Your task to perform on an android device: Look up the book "The Girl on the Train". Image 0: 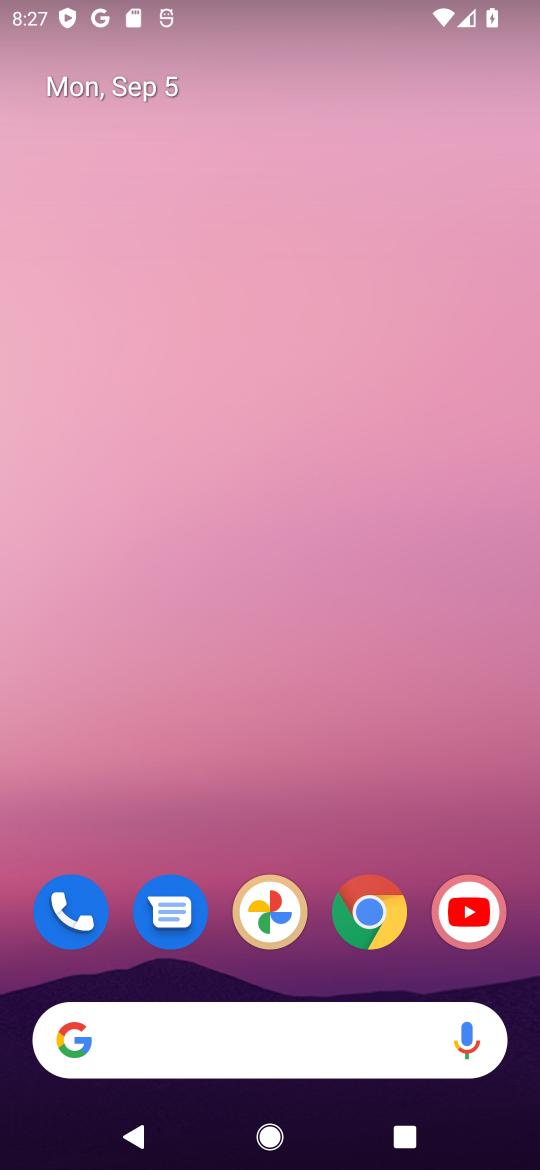
Step 0: press home button
Your task to perform on an android device: Look up the book "The Girl on the Train". Image 1: 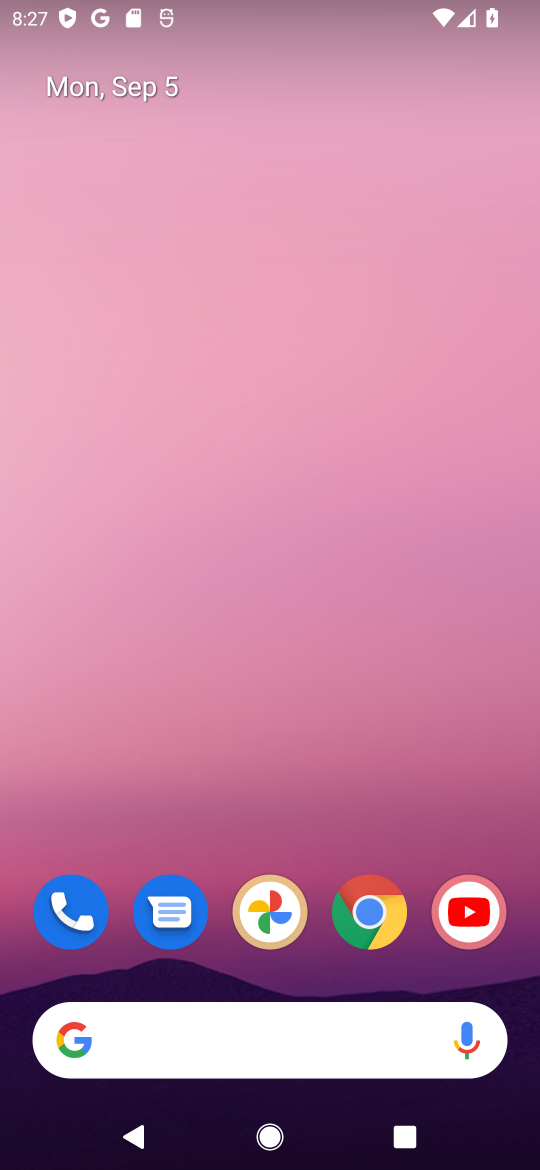
Step 1: click (377, 916)
Your task to perform on an android device: Look up the book "The Girl on the Train". Image 2: 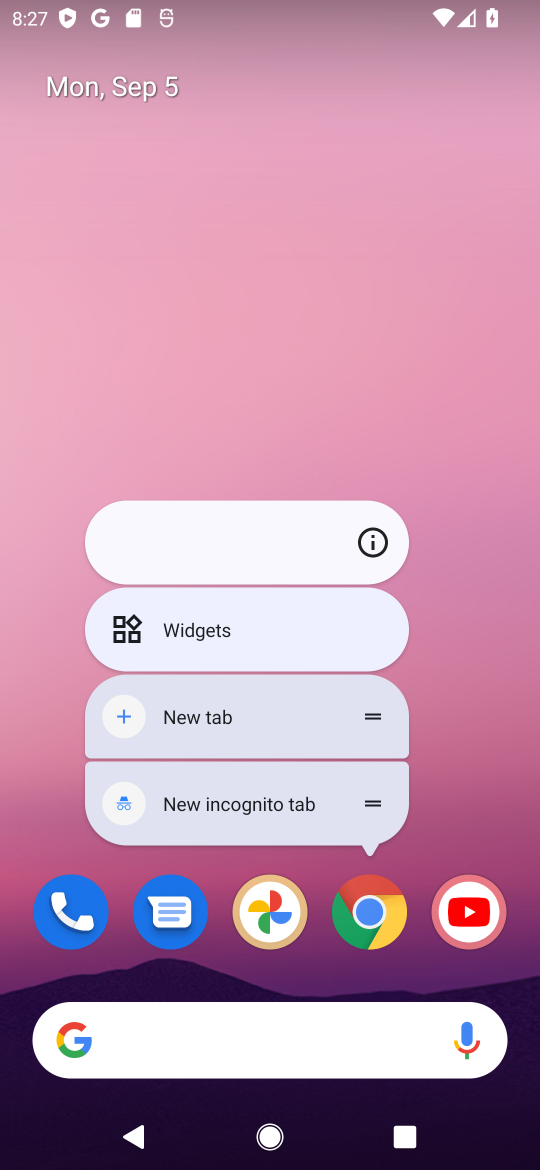
Step 2: click (387, 922)
Your task to perform on an android device: Look up the book "The Girl on the Train". Image 3: 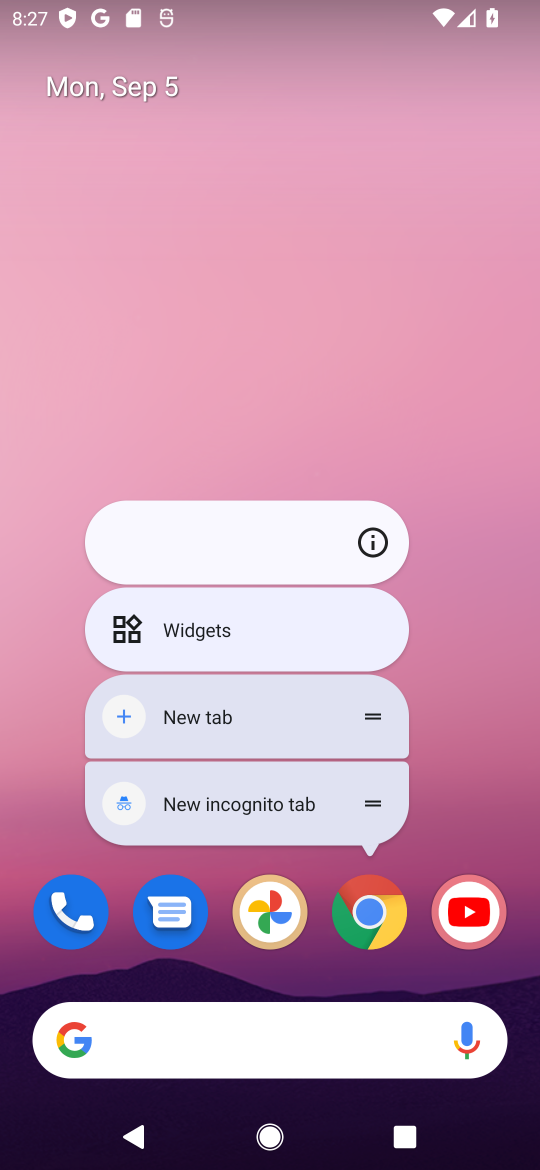
Step 3: click (387, 922)
Your task to perform on an android device: Look up the book "The Girl on the Train". Image 4: 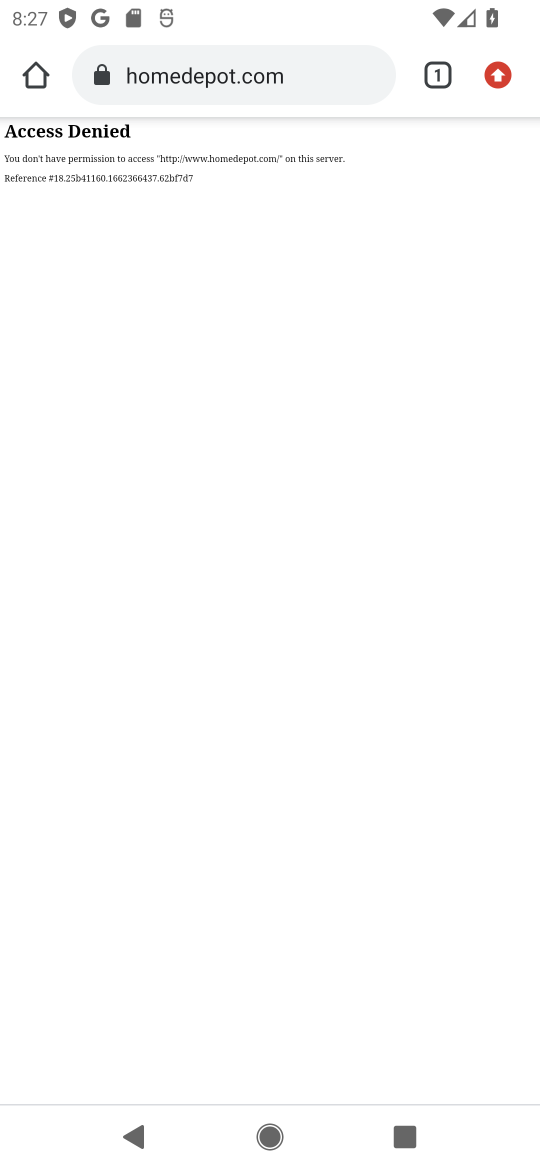
Step 4: click (276, 70)
Your task to perform on an android device: Look up the book "The Girl on the Train". Image 5: 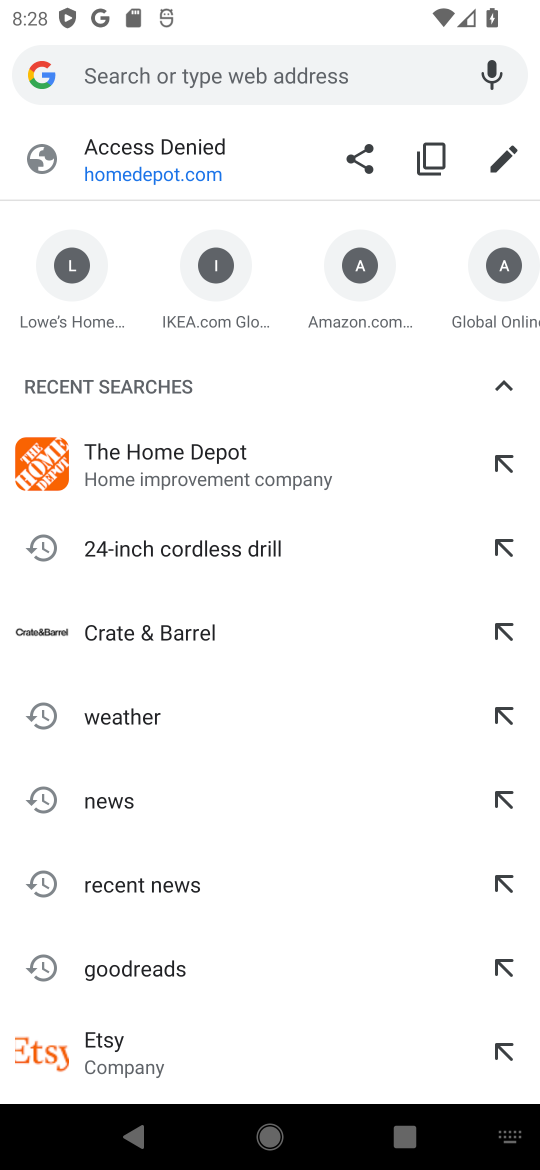
Step 5: type "the girl on the train book"
Your task to perform on an android device: Look up the book "The Girl on the Train". Image 6: 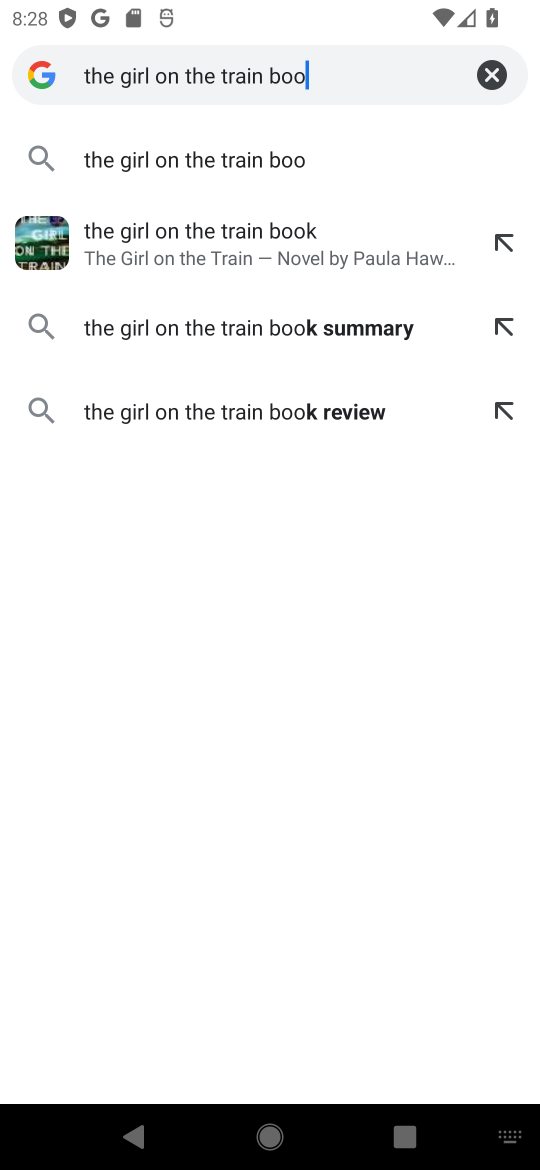
Step 6: press enter
Your task to perform on an android device: Look up the book "The Girl on the Train". Image 7: 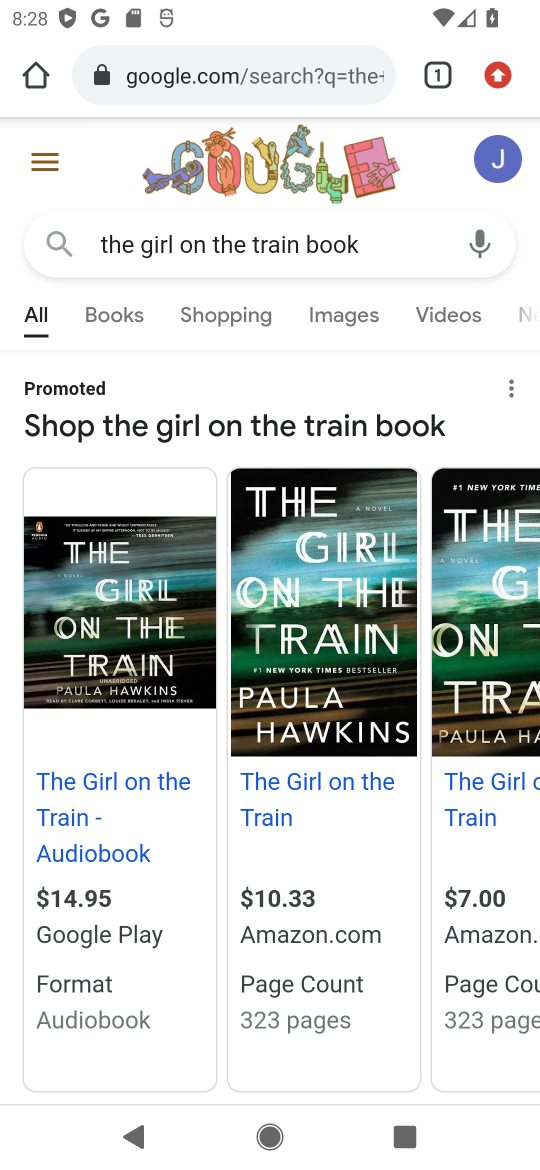
Step 7: drag from (437, 665) to (223, 667)
Your task to perform on an android device: Look up the book "The Girl on the Train". Image 8: 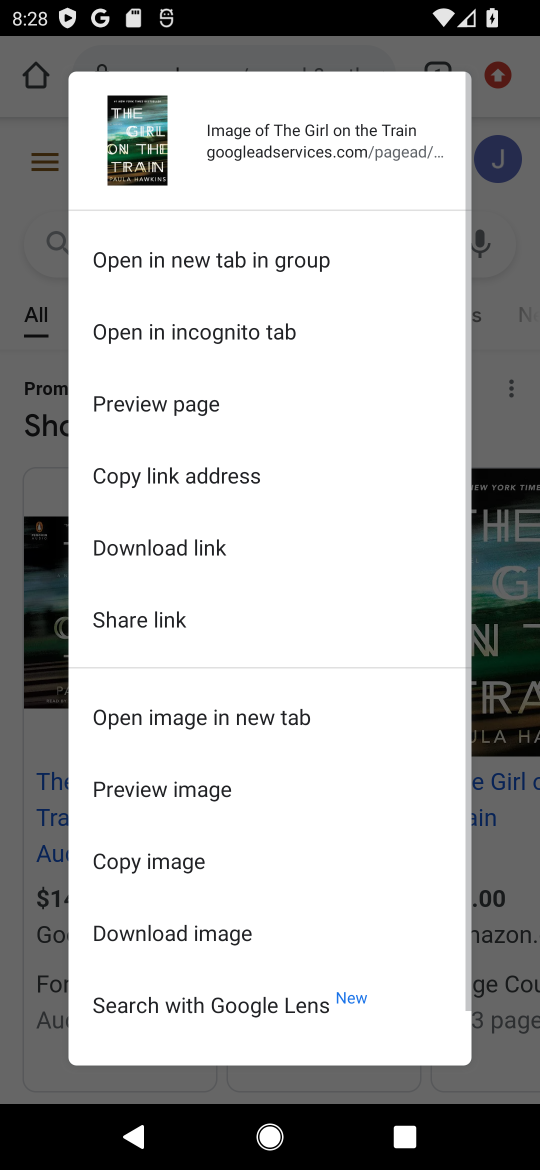
Step 8: click (499, 685)
Your task to perform on an android device: Look up the book "The Girl on the Train". Image 9: 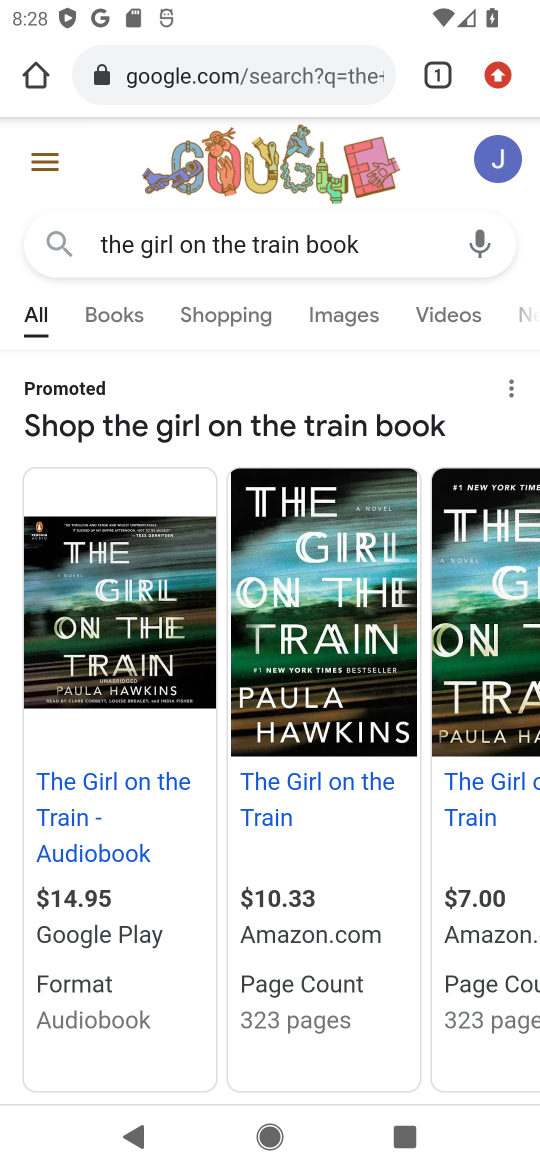
Step 9: click (513, 724)
Your task to perform on an android device: Look up the book "The Girl on the Train". Image 10: 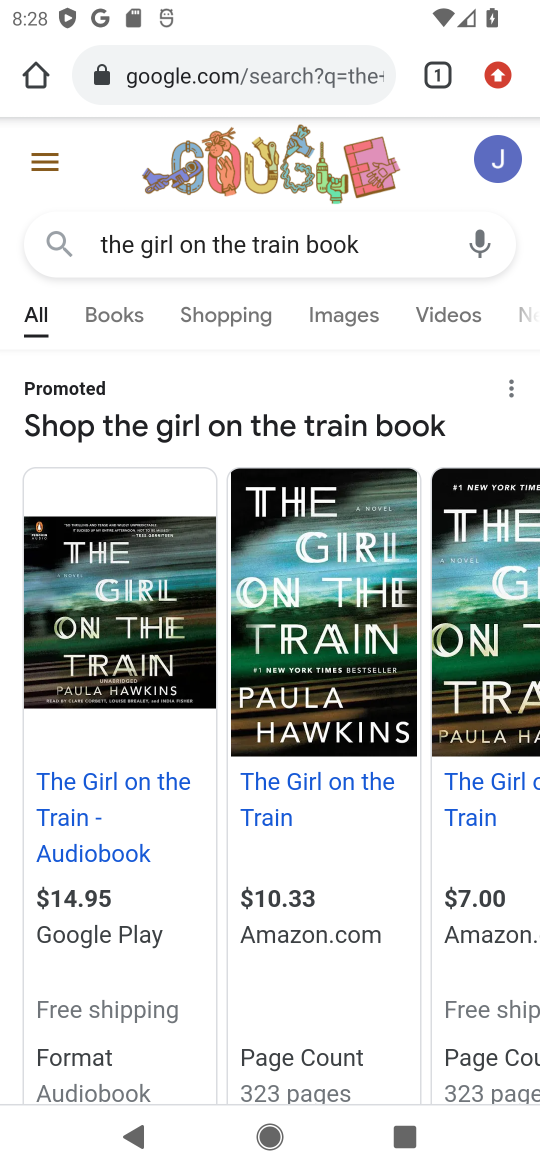
Step 10: drag from (327, 933) to (321, 261)
Your task to perform on an android device: Look up the book "The Girl on the Train". Image 11: 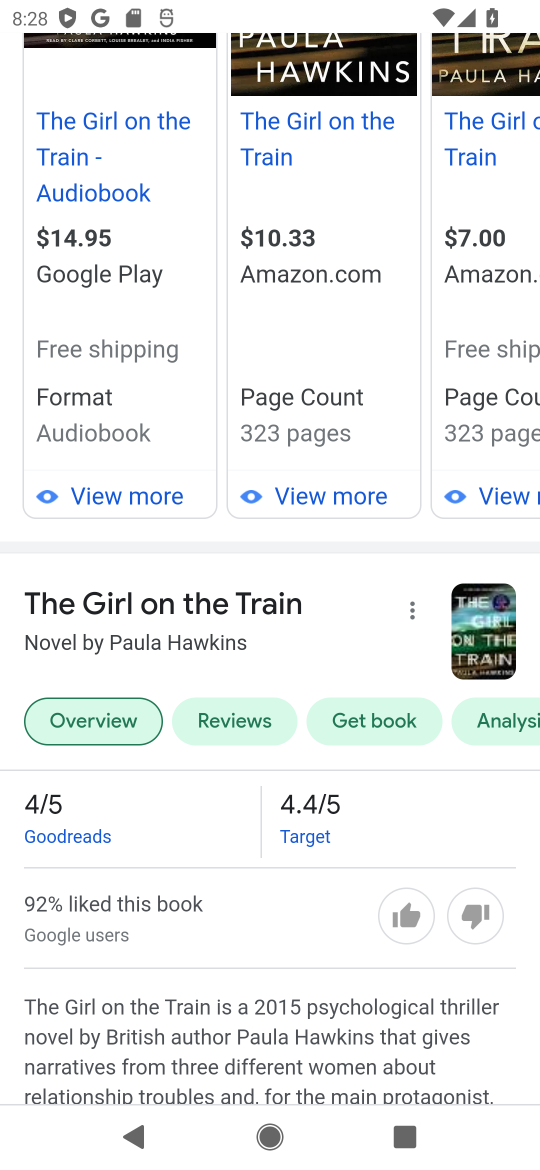
Step 11: drag from (340, 722) to (309, 416)
Your task to perform on an android device: Look up the book "The Girl on the Train". Image 12: 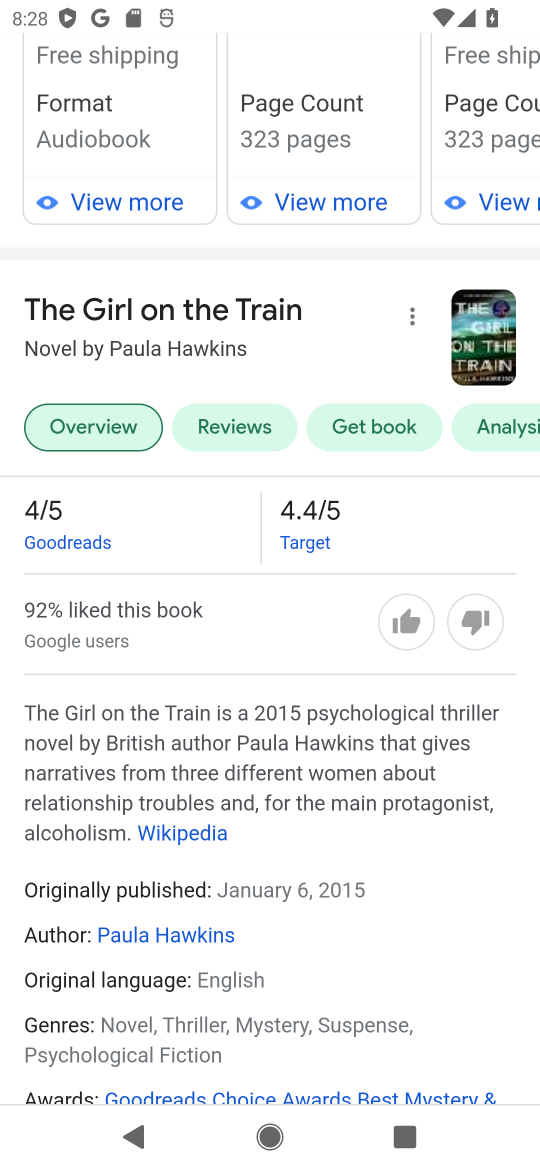
Step 12: drag from (339, 865) to (343, 715)
Your task to perform on an android device: Look up the book "The Girl on the Train". Image 13: 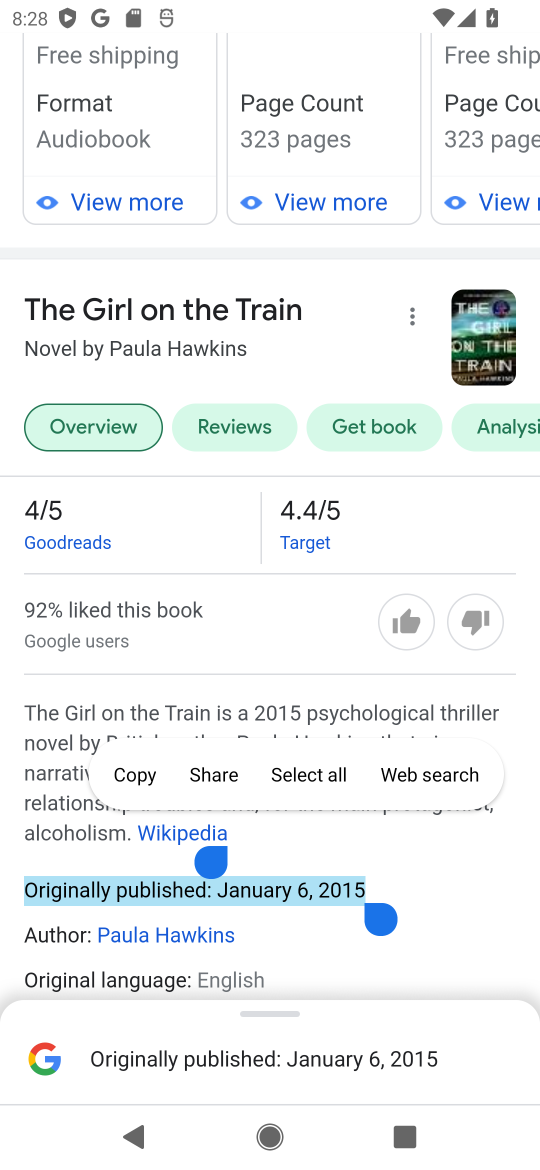
Step 13: click (441, 845)
Your task to perform on an android device: Look up the book "The Girl on the Train". Image 14: 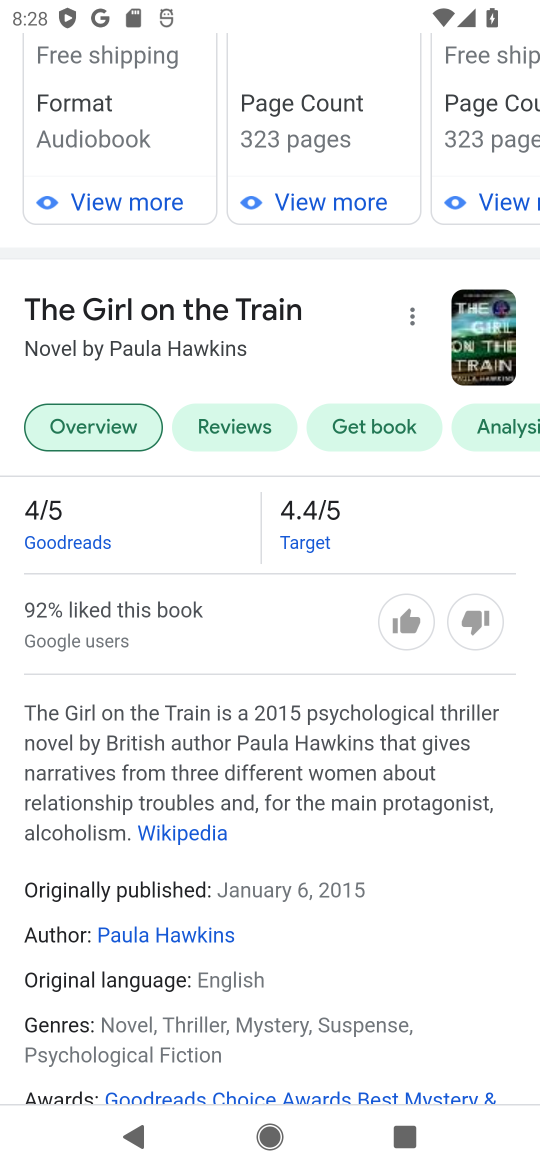
Step 14: drag from (345, 912) to (356, 476)
Your task to perform on an android device: Look up the book "The Girl on the Train". Image 15: 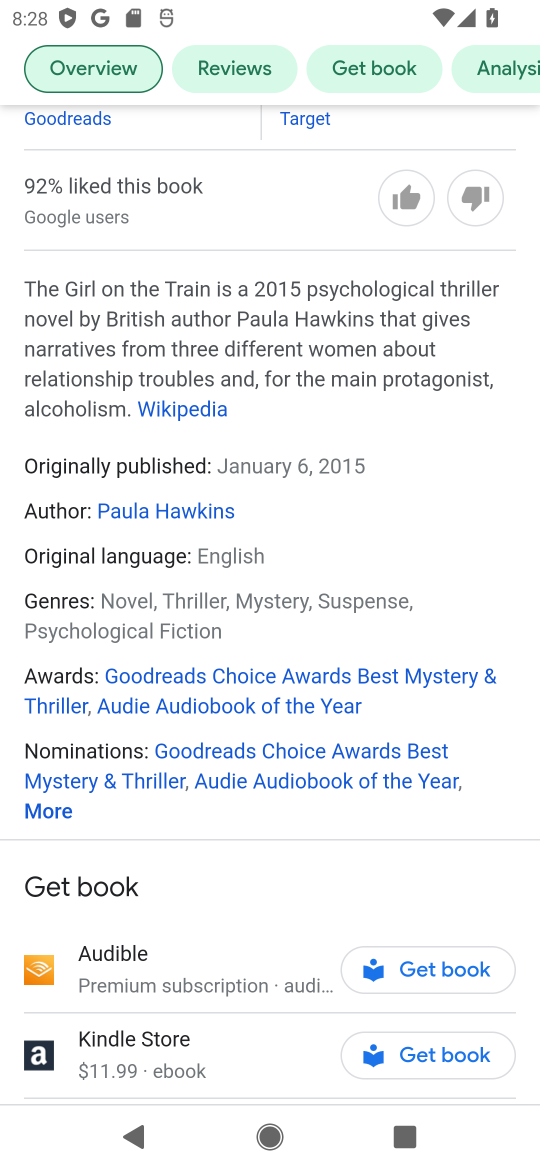
Step 15: drag from (296, 853) to (324, 350)
Your task to perform on an android device: Look up the book "The Girl on the Train". Image 16: 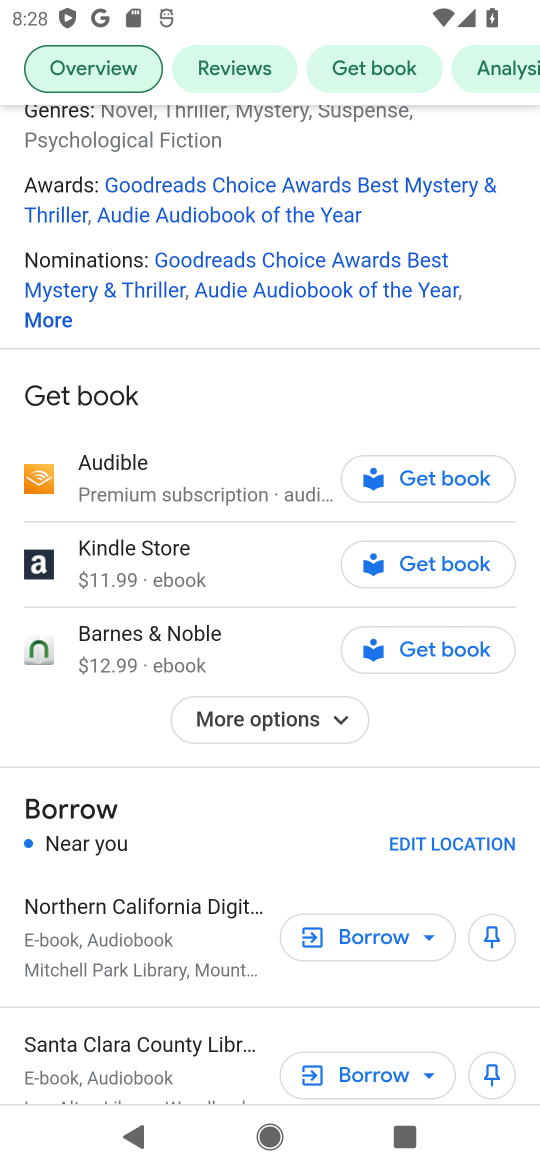
Step 16: drag from (305, 999) to (328, 487)
Your task to perform on an android device: Look up the book "The Girl on the Train". Image 17: 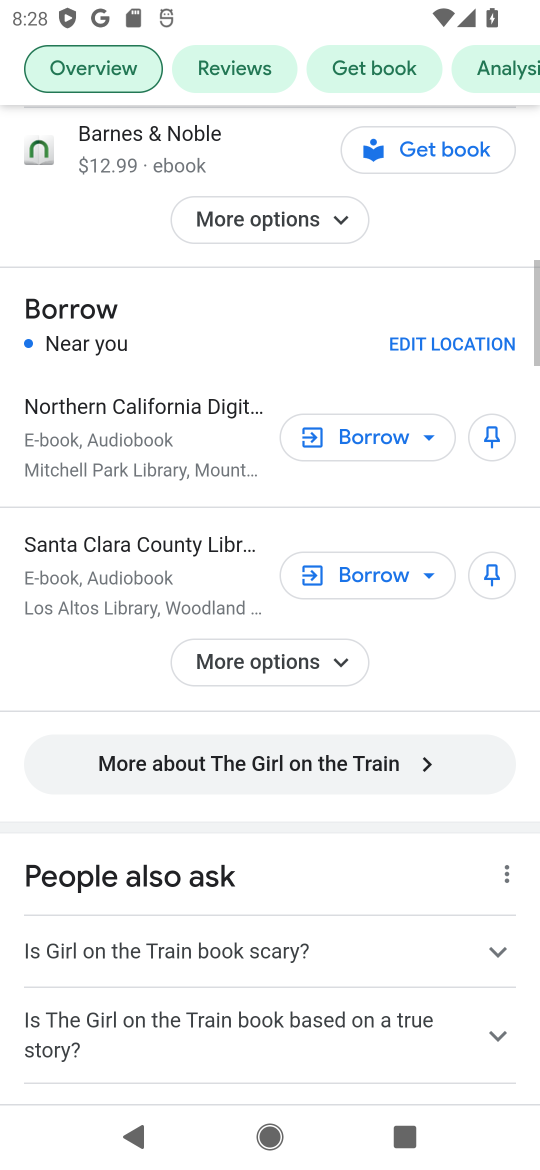
Step 17: drag from (305, 962) to (328, 416)
Your task to perform on an android device: Look up the book "The Girl on the Train". Image 18: 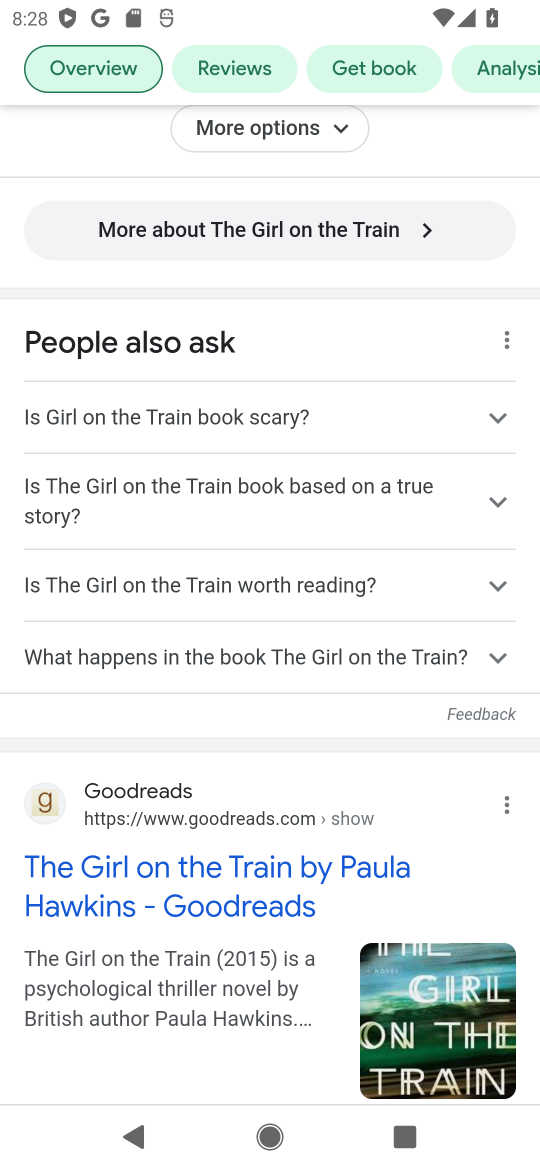
Step 18: drag from (261, 891) to (313, 522)
Your task to perform on an android device: Look up the book "The Girl on the Train". Image 19: 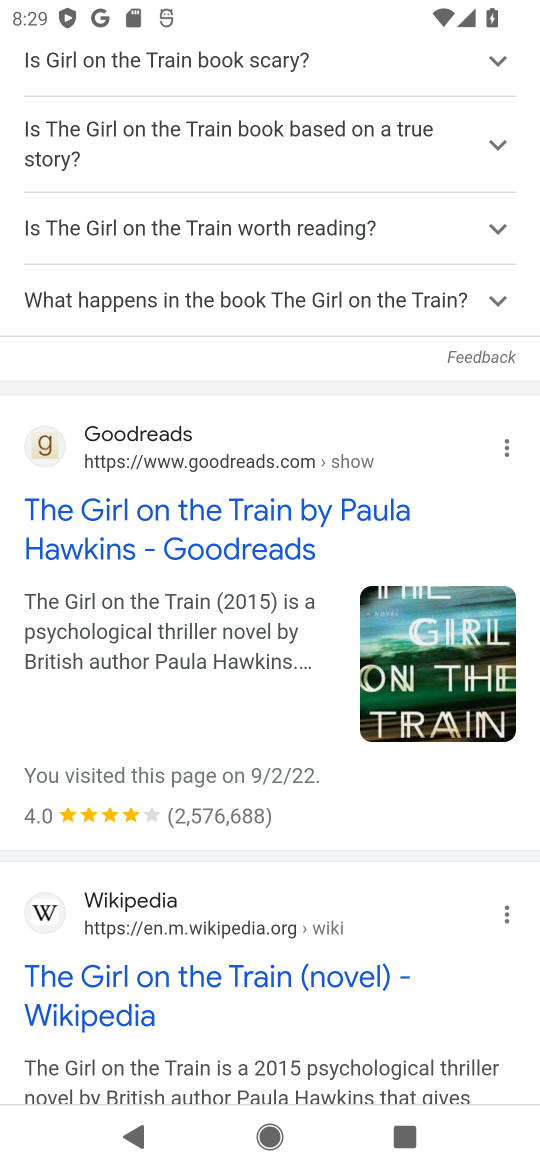
Step 19: drag from (262, 647) to (278, 506)
Your task to perform on an android device: Look up the book "The Girl on the Train". Image 20: 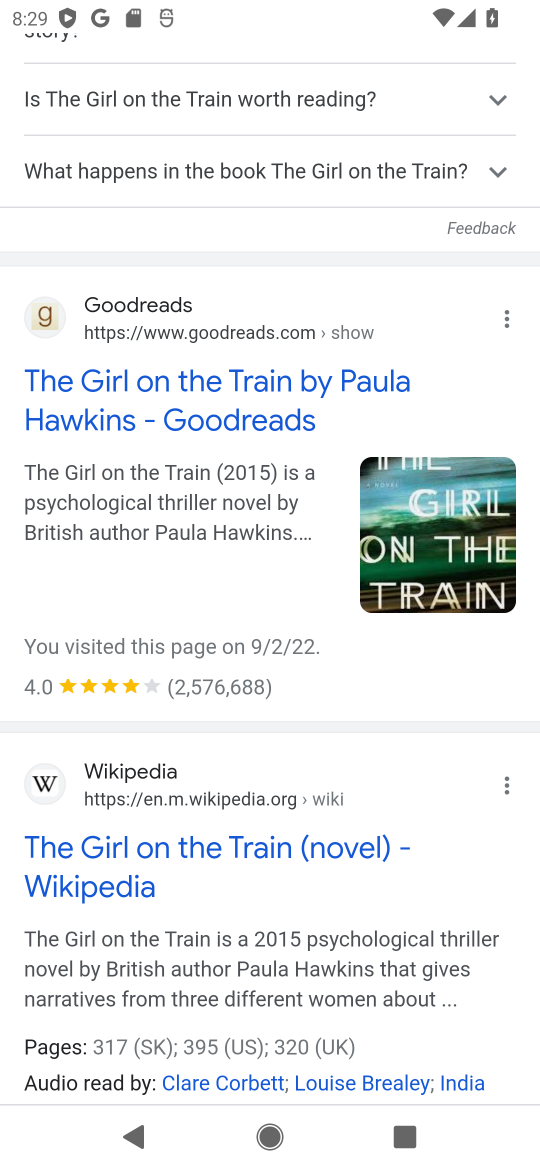
Step 20: drag from (236, 775) to (269, 372)
Your task to perform on an android device: Look up the book "The Girl on the Train". Image 21: 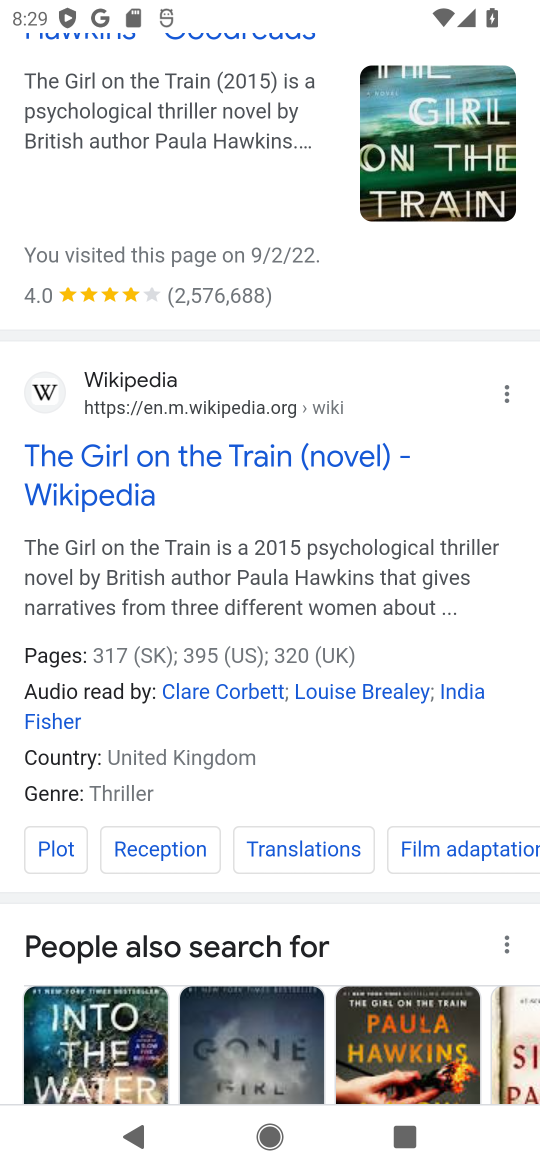
Step 21: drag from (307, 768) to (342, 361)
Your task to perform on an android device: Look up the book "The Girl on the Train". Image 22: 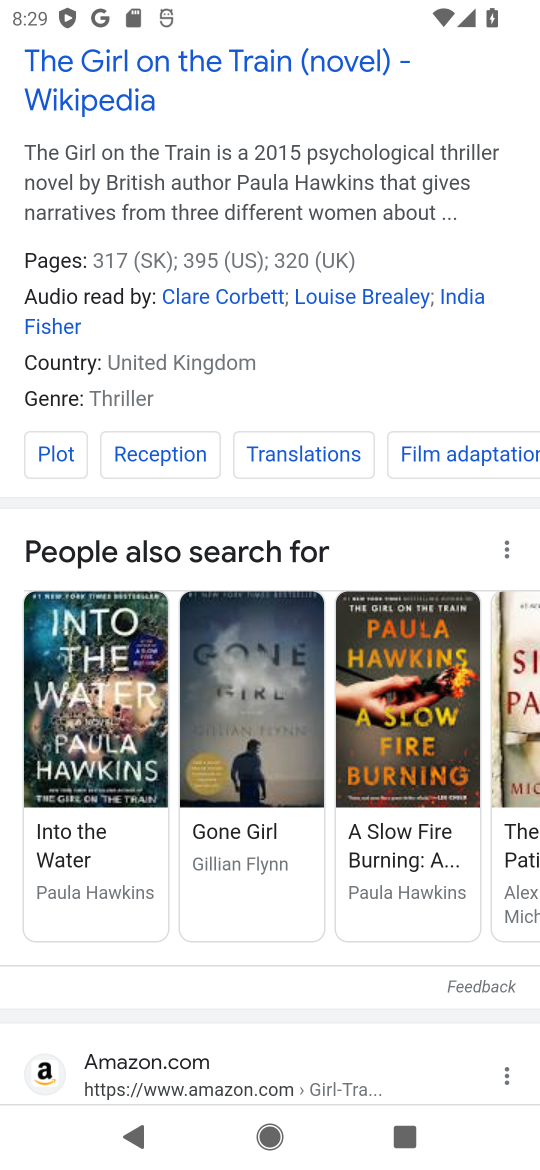
Step 22: drag from (282, 519) to (282, 345)
Your task to perform on an android device: Look up the book "The Girl on the Train". Image 23: 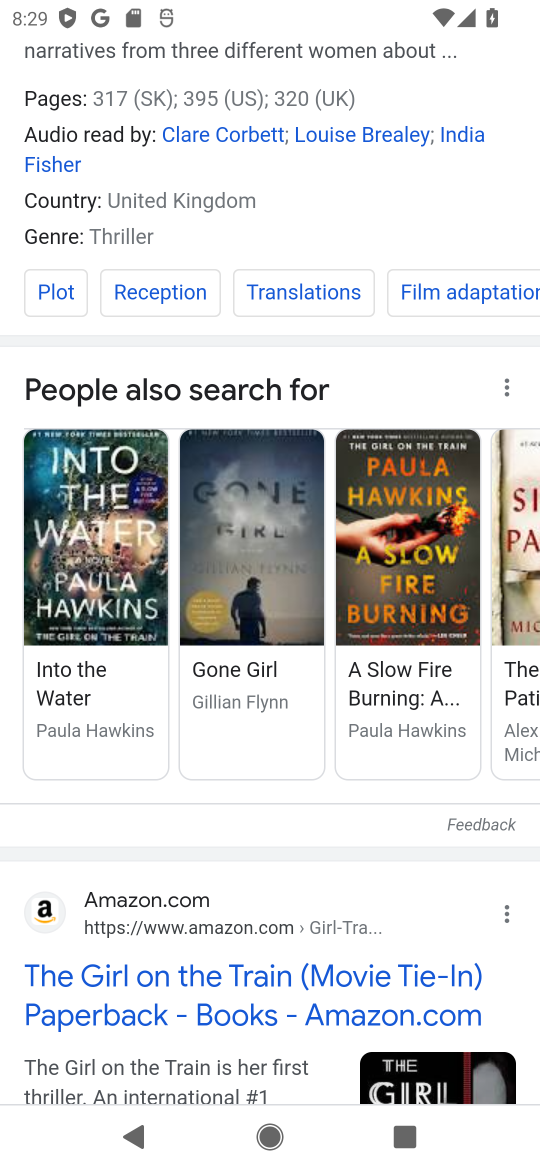
Step 23: drag from (271, 812) to (294, 363)
Your task to perform on an android device: Look up the book "The Girl on the Train". Image 24: 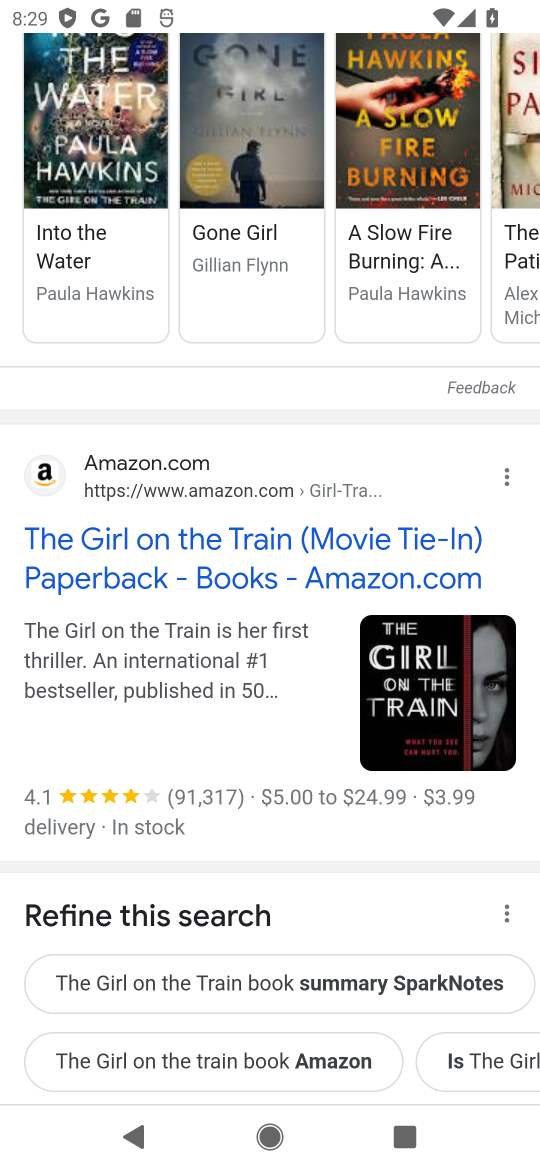
Step 24: drag from (252, 816) to (224, 270)
Your task to perform on an android device: Look up the book "The Girl on the Train". Image 25: 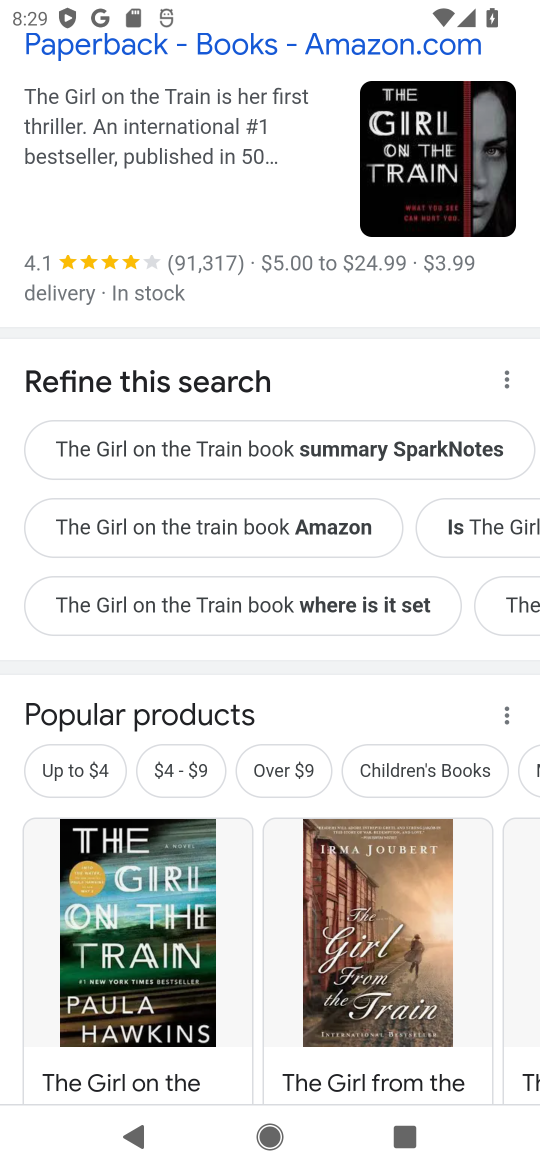
Step 25: drag from (244, 749) to (252, 938)
Your task to perform on an android device: Look up the book "The Girl on the Train". Image 26: 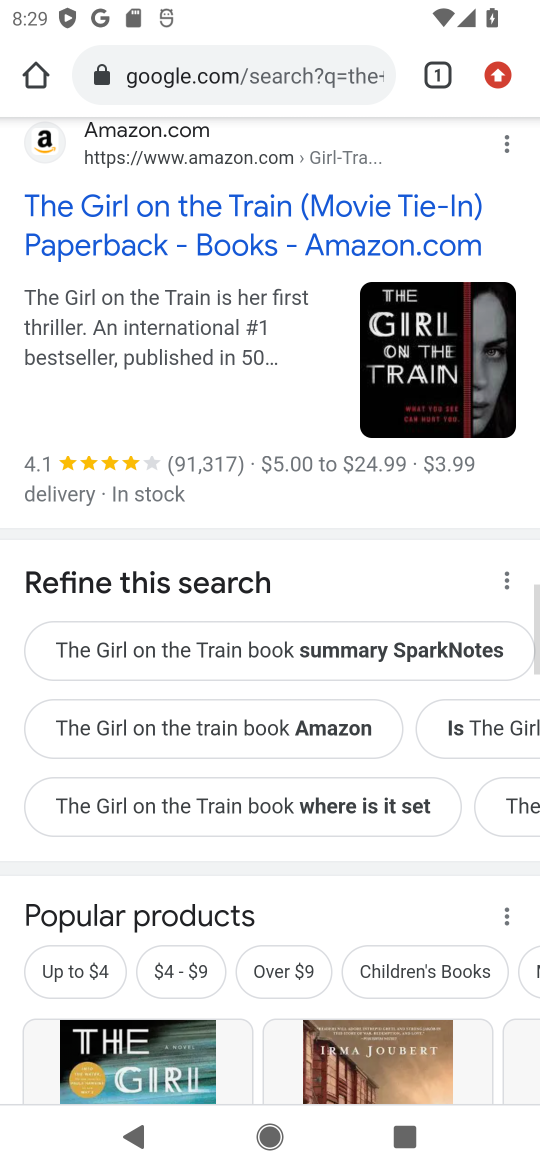
Step 26: drag from (273, 550) to (328, 921)
Your task to perform on an android device: Look up the book "The Girl on the Train". Image 27: 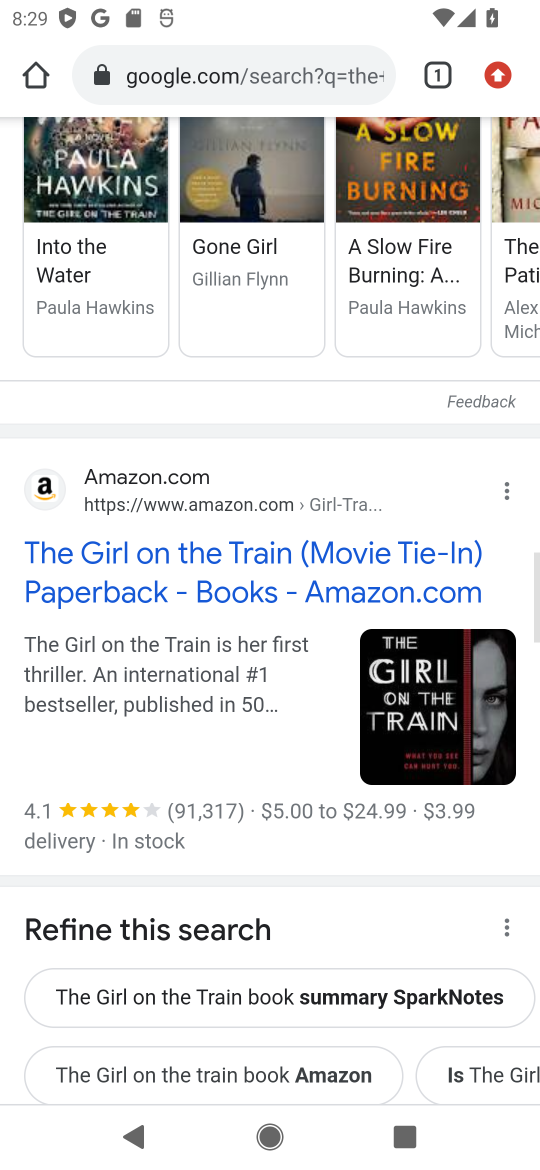
Step 27: drag from (308, 350) to (301, 793)
Your task to perform on an android device: Look up the book "The Girl on the Train". Image 28: 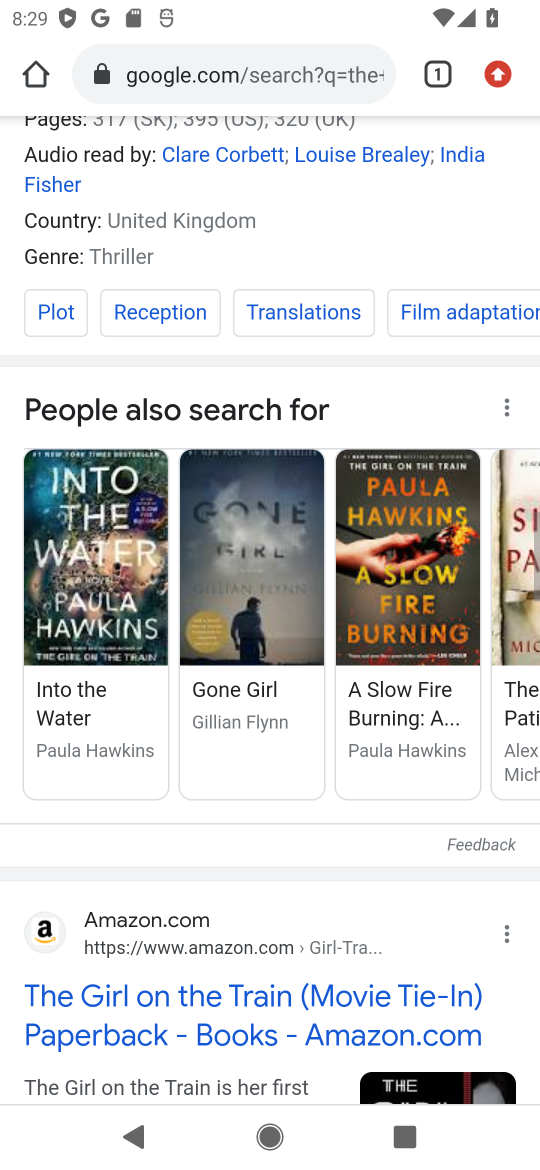
Step 28: drag from (289, 329) to (277, 792)
Your task to perform on an android device: Look up the book "The Girl on the Train". Image 29: 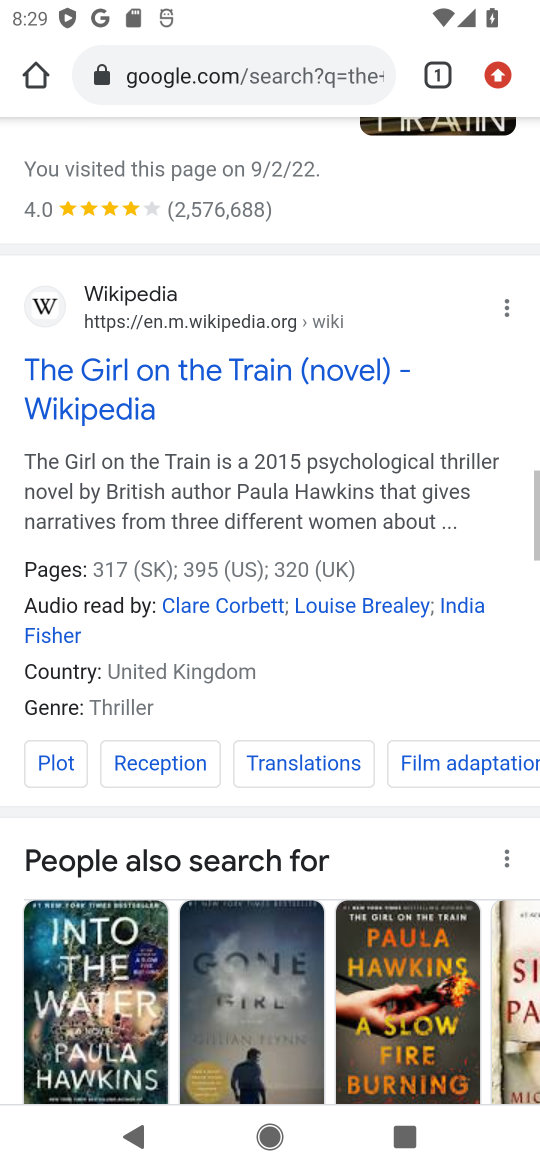
Step 29: drag from (294, 495) to (296, 718)
Your task to perform on an android device: Look up the book "The Girl on the Train". Image 30: 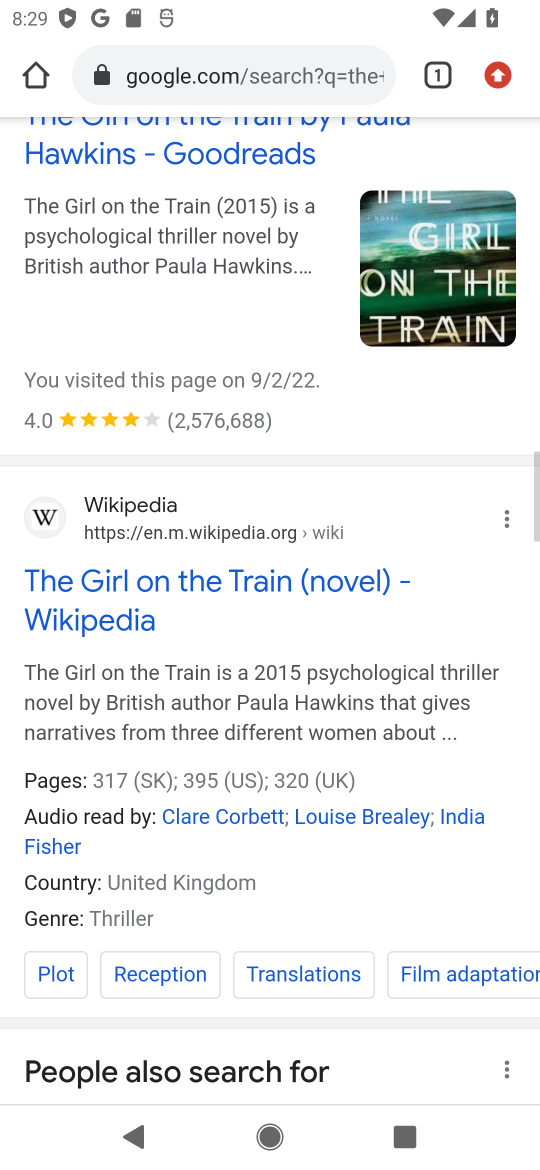
Step 30: drag from (322, 417) to (326, 759)
Your task to perform on an android device: Look up the book "The Girl on the Train". Image 31: 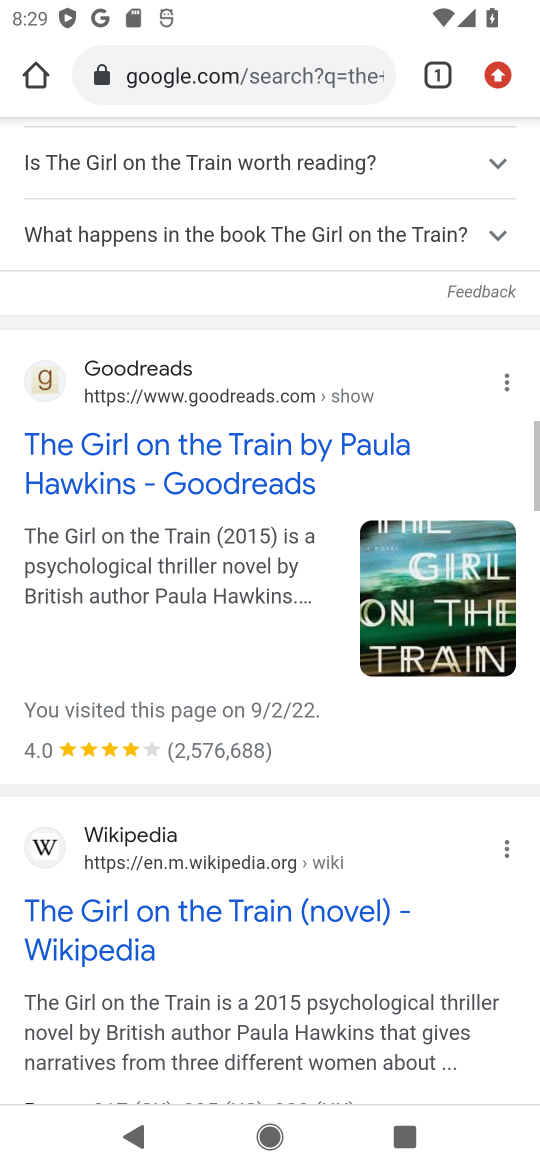
Step 31: drag from (269, 307) to (272, 678)
Your task to perform on an android device: Look up the book "The Girl on the Train". Image 32: 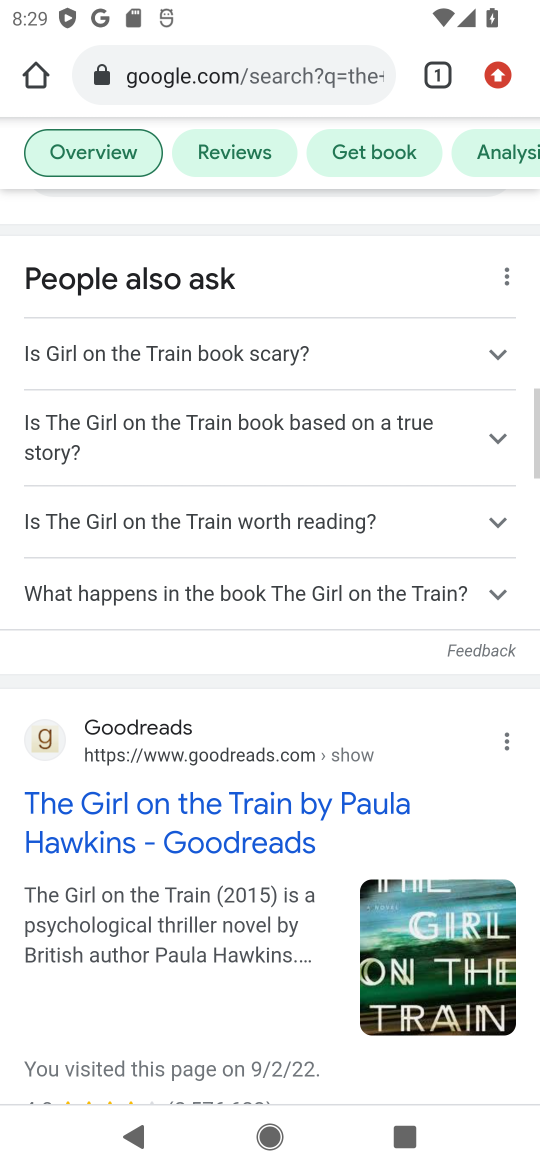
Step 32: drag from (269, 496) to (275, 720)
Your task to perform on an android device: Look up the book "The Girl on the Train". Image 33: 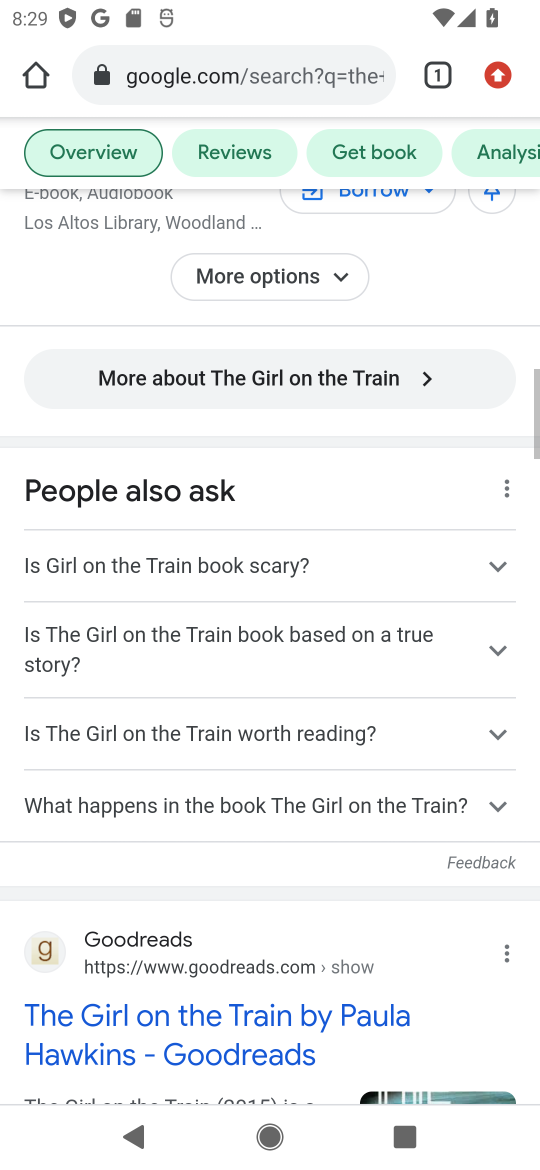
Step 33: drag from (344, 323) to (339, 634)
Your task to perform on an android device: Look up the book "The Girl on the Train". Image 34: 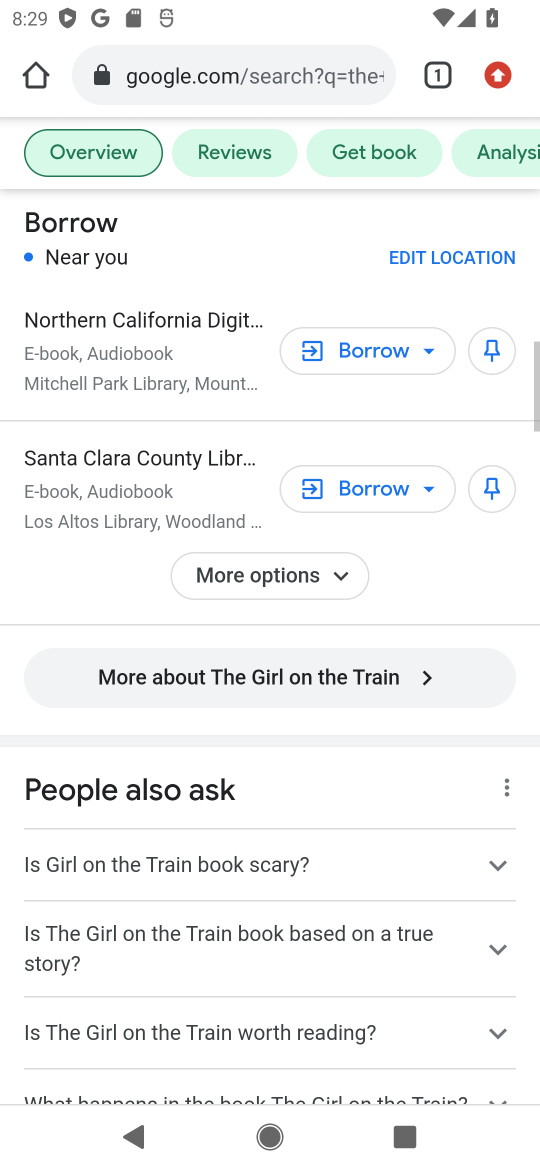
Step 34: drag from (364, 417) to (323, 658)
Your task to perform on an android device: Look up the book "The Girl on the Train". Image 35: 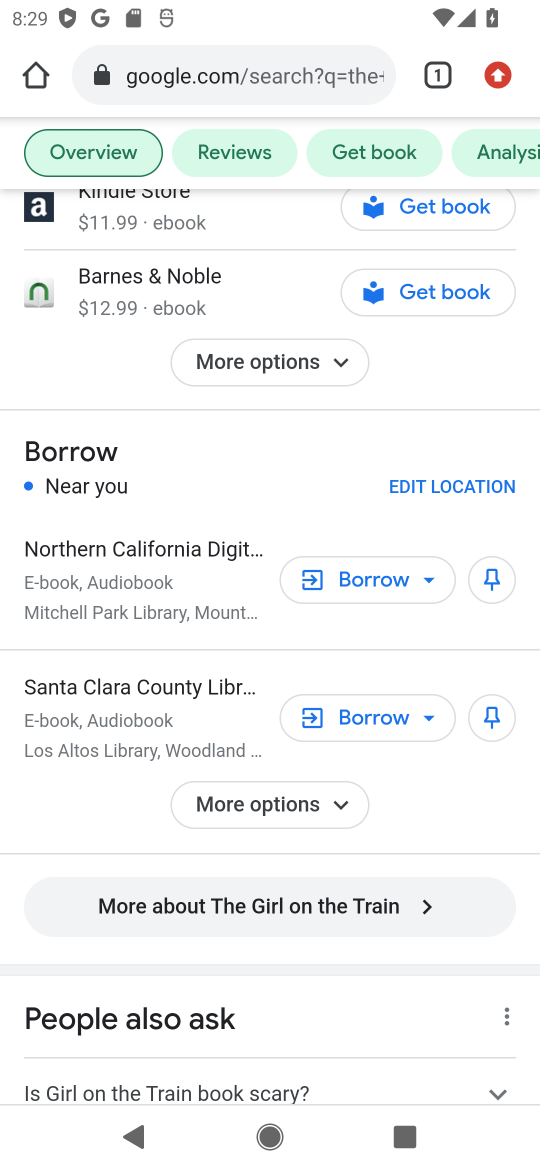
Step 35: drag from (406, 280) to (423, 698)
Your task to perform on an android device: Look up the book "The Girl on the Train". Image 36: 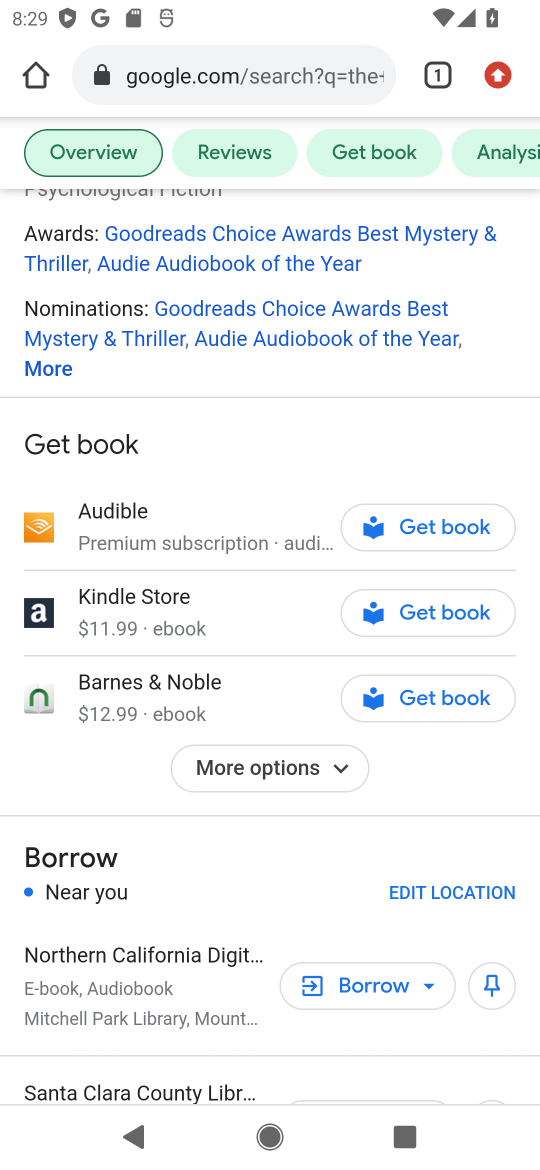
Step 36: drag from (343, 340) to (315, 648)
Your task to perform on an android device: Look up the book "The Girl on the Train". Image 37: 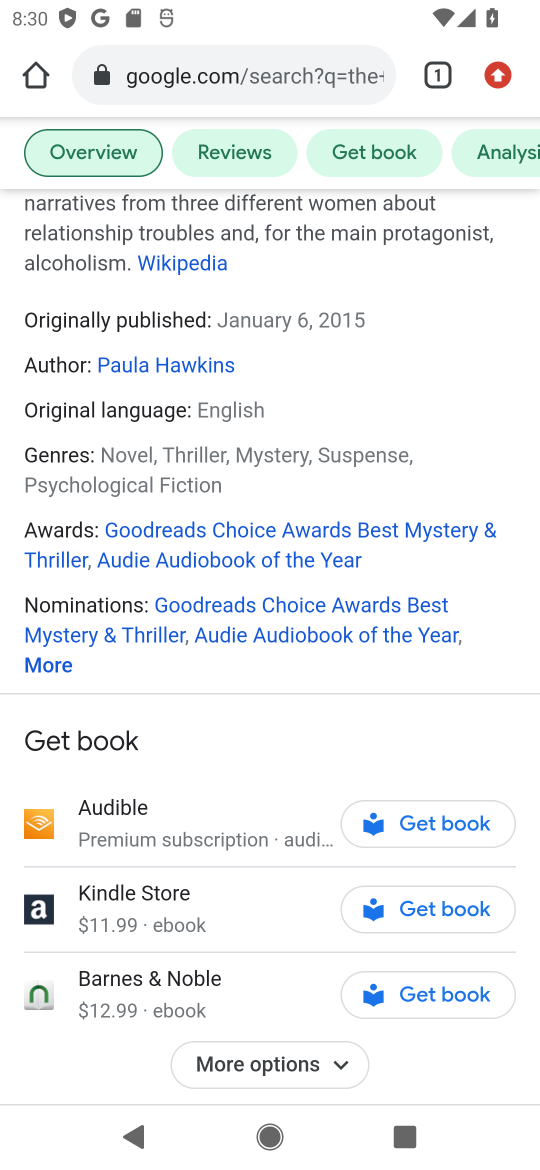
Step 37: drag from (344, 399) to (315, 725)
Your task to perform on an android device: Look up the book "The Girl on the Train". Image 38: 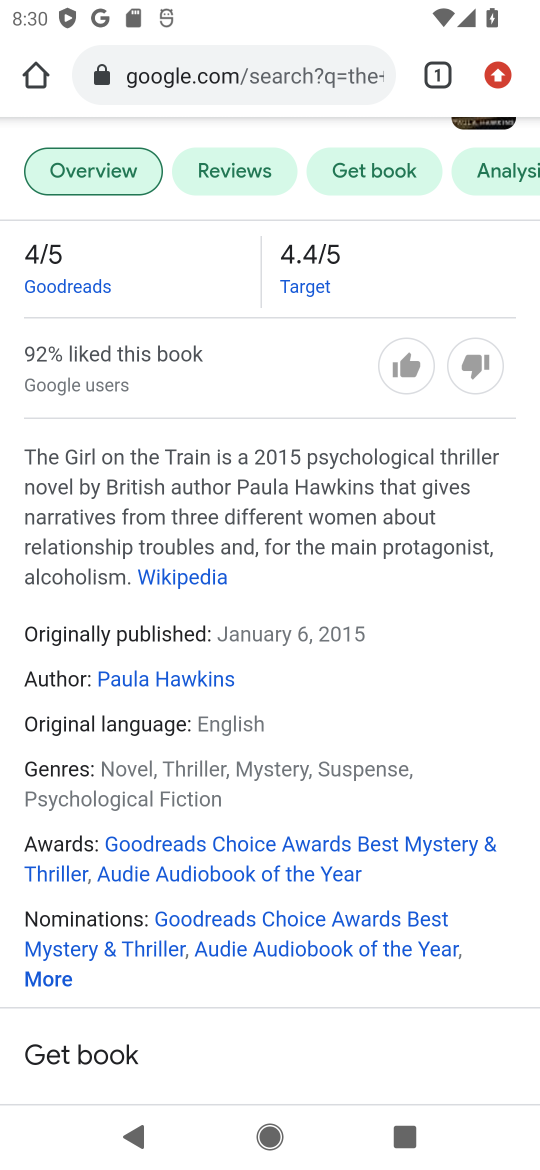
Step 38: drag from (300, 330) to (345, 714)
Your task to perform on an android device: Look up the book "The Girl on the Train". Image 39: 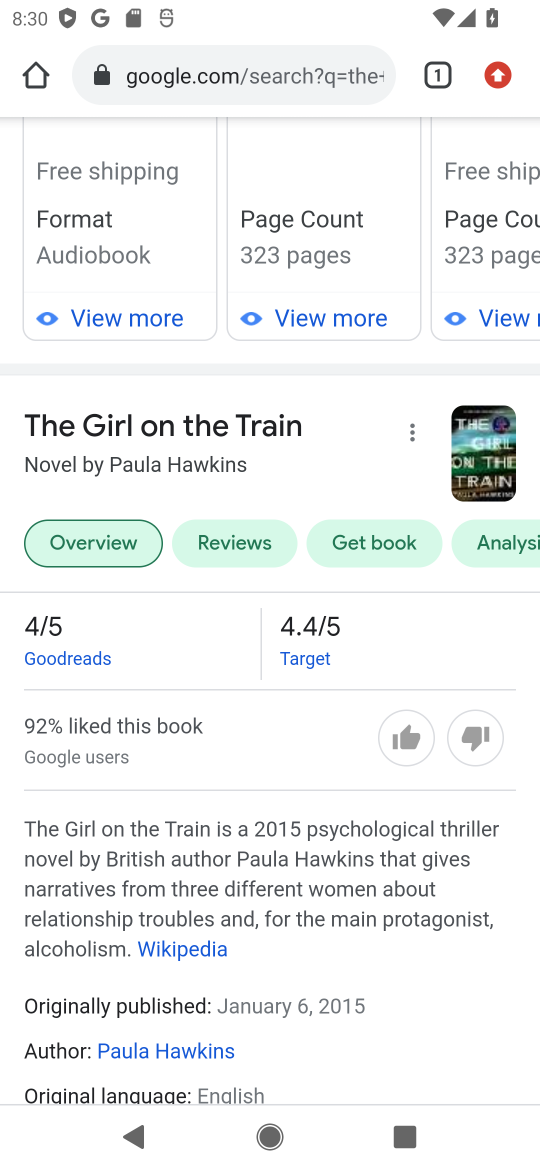
Step 39: drag from (489, 548) to (50, 560)
Your task to perform on an android device: Look up the book "The Girl on the Train". Image 40: 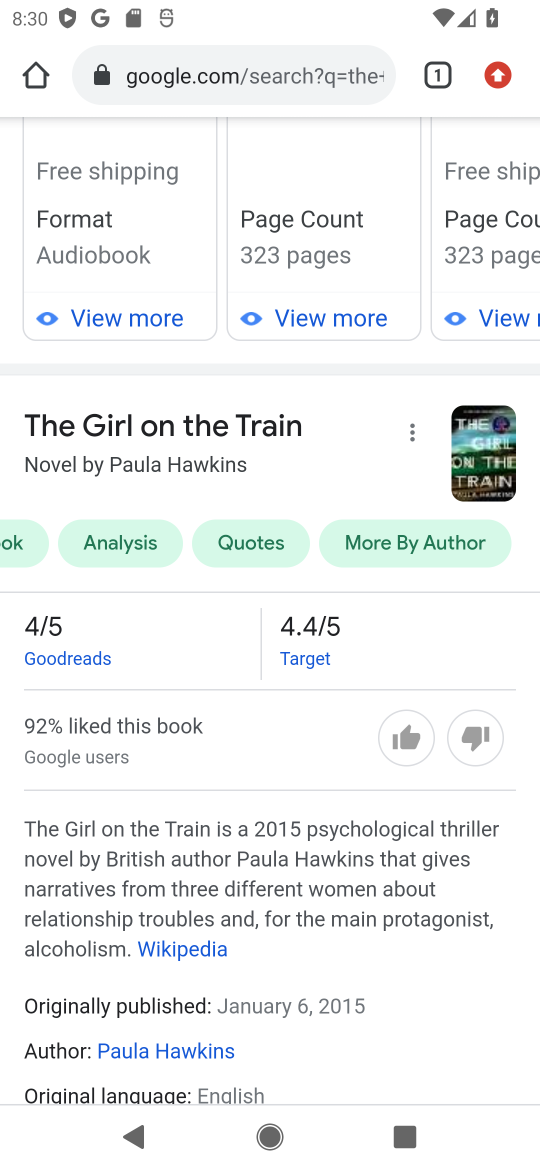
Step 40: drag from (247, 514) to (262, 809)
Your task to perform on an android device: Look up the book "The Girl on the Train". Image 41: 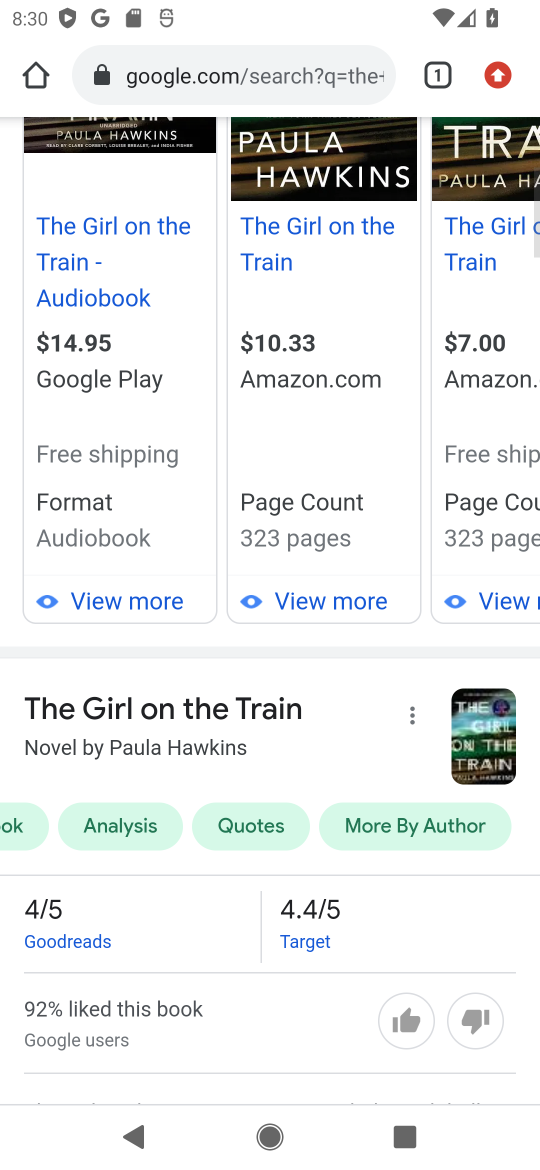
Step 41: click (313, 508)
Your task to perform on an android device: Look up the book "The Girl on the Train". Image 42: 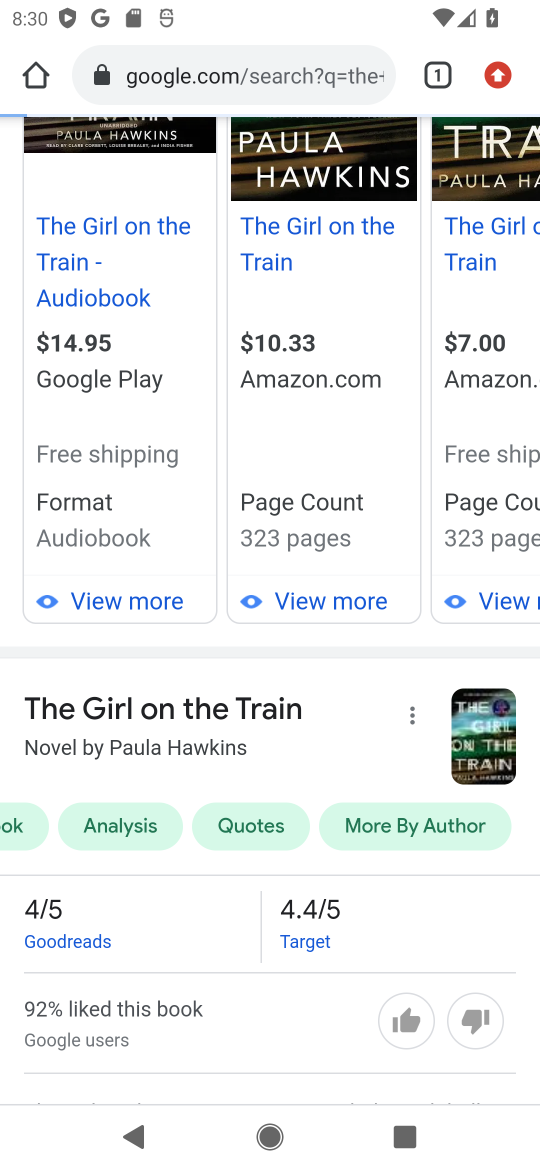
Step 42: task complete